Your task to perform on an android device: empty trash in google photos Image 0: 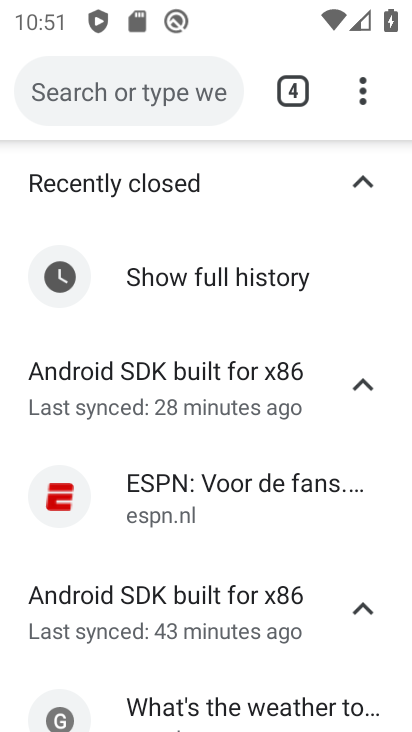
Step 0: press back button
Your task to perform on an android device: empty trash in google photos Image 1: 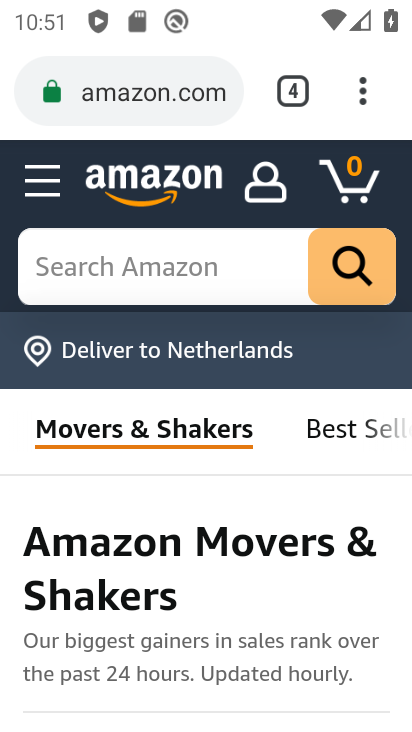
Step 1: click (363, 92)
Your task to perform on an android device: empty trash in google photos Image 2: 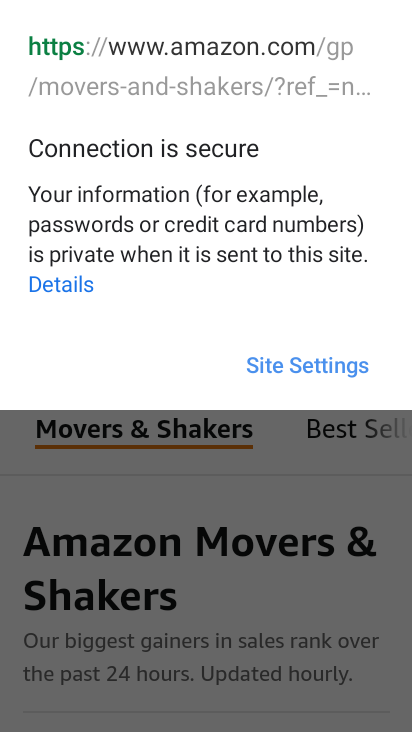
Step 2: click (29, 103)
Your task to perform on an android device: empty trash in google photos Image 3: 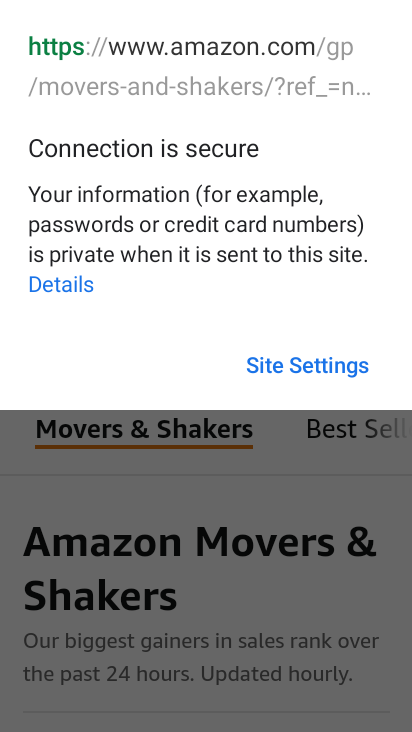
Step 3: click (295, 357)
Your task to perform on an android device: empty trash in google photos Image 4: 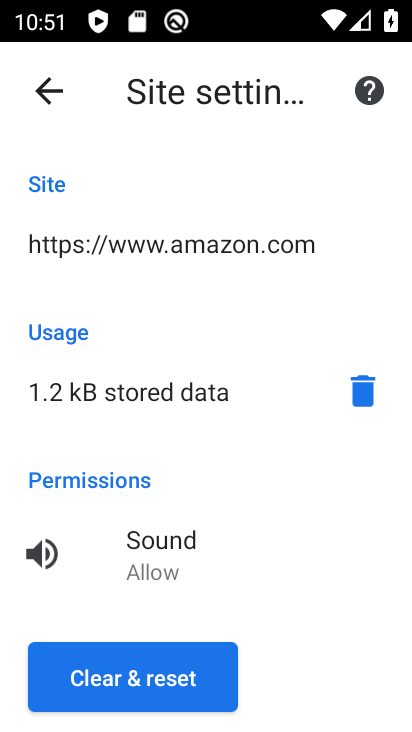
Step 4: press home button
Your task to perform on an android device: empty trash in google photos Image 5: 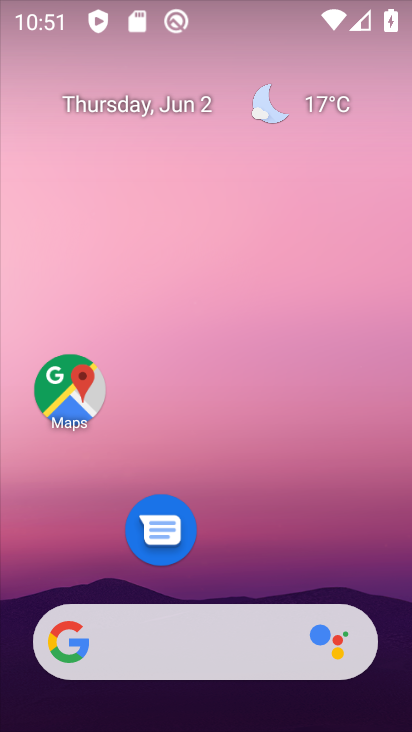
Step 5: drag from (238, 689) to (244, 21)
Your task to perform on an android device: empty trash in google photos Image 6: 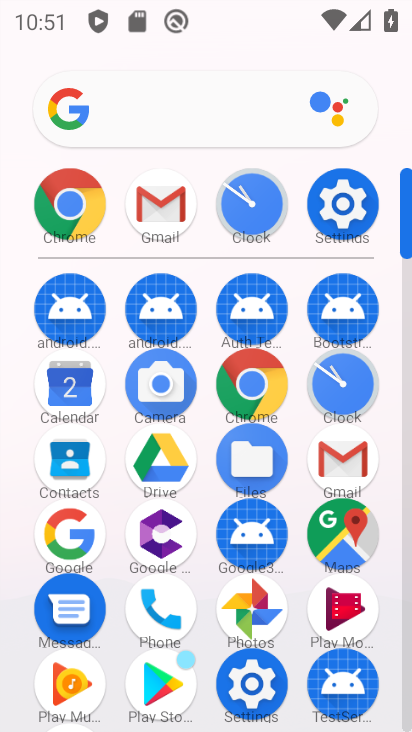
Step 6: click (261, 620)
Your task to perform on an android device: empty trash in google photos Image 7: 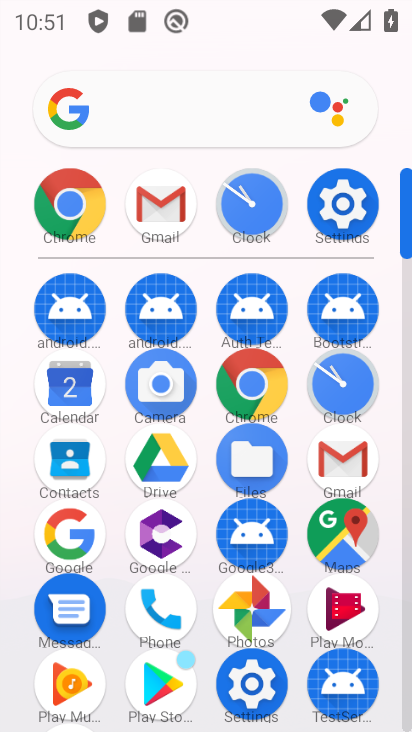
Step 7: click (265, 612)
Your task to perform on an android device: empty trash in google photos Image 8: 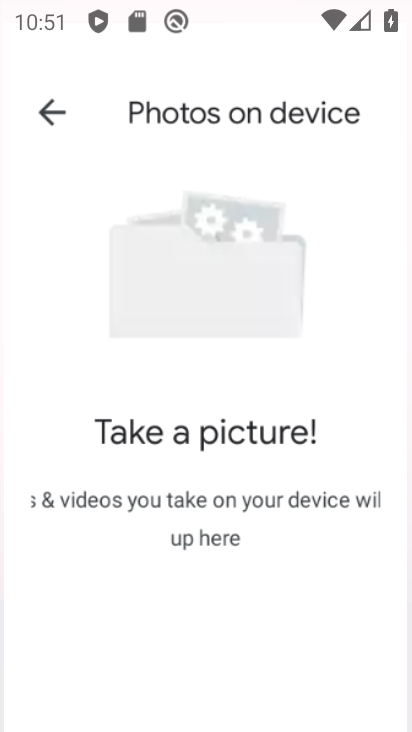
Step 8: click (265, 613)
Your task to perform on an android device: empty trash in google photos Image 9: 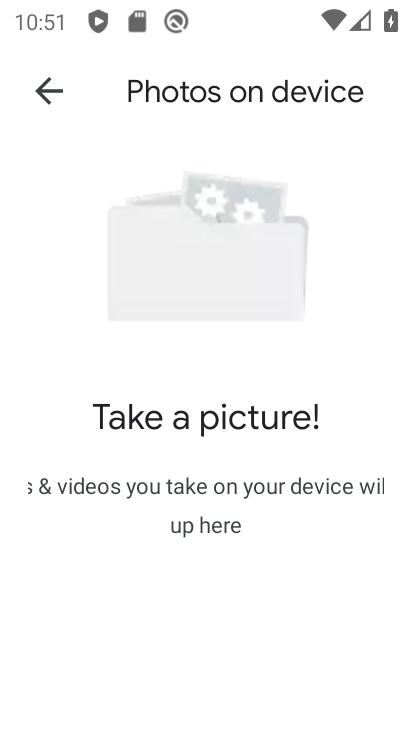
Step 9: click (40, 88)
Your task to perform on an android device: empty trash in google photos Image 10: 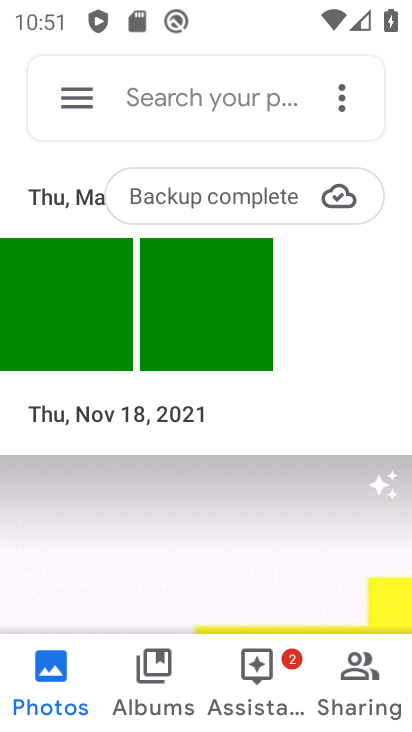
Step 10: click (79, 90)
Your task to perform on an android device: empty trash in google photos Image 11: 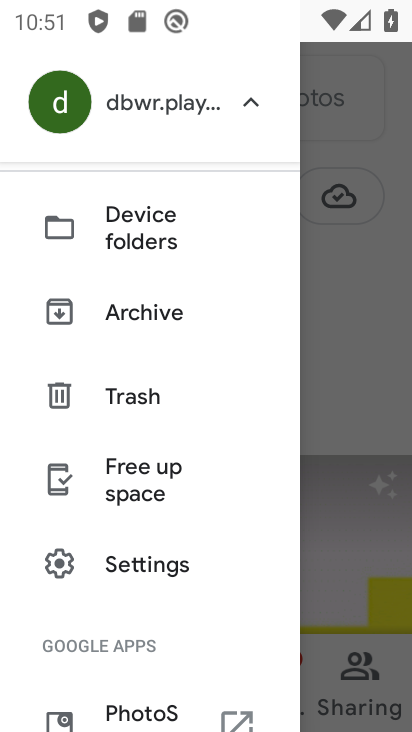
Step 11: click (126, 390)
Your task to perform on an android device: empty trash in google photos Image 12: 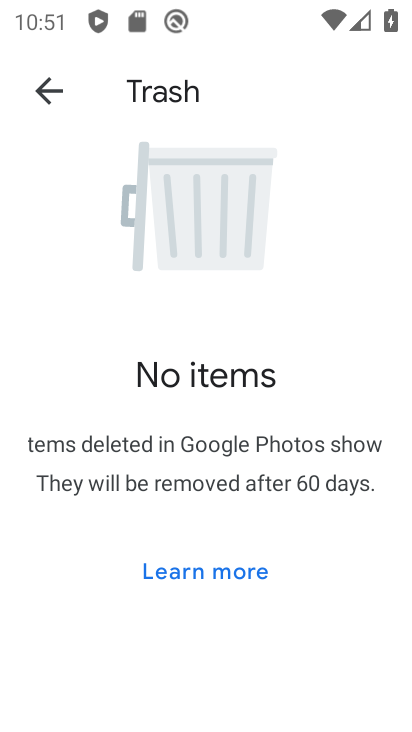
Step 12: task complete